Your task to perform on an android device: turn off improve location accuracy Image 0: 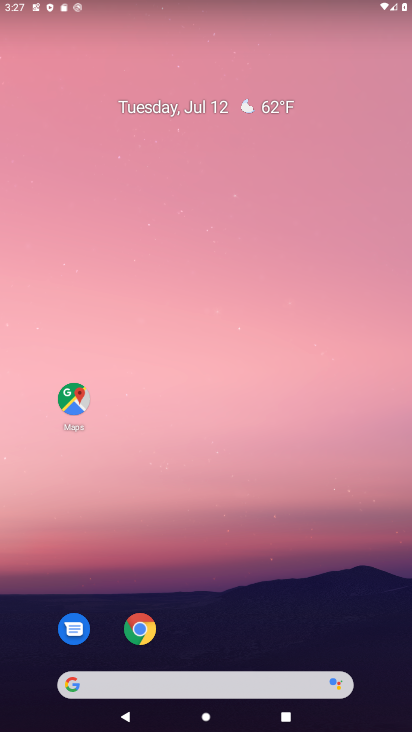
Step 0: drag from (223, 677) to (204, 101)
Your task to perform on an android device: turn off improve location accuracy Image 1: 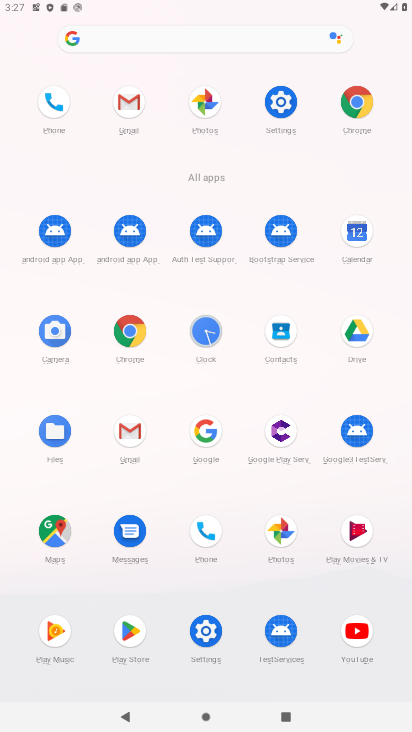
Step 1: click (261, 107)
Your task to perform on an android device: turn off improve location accuracy Image 2: 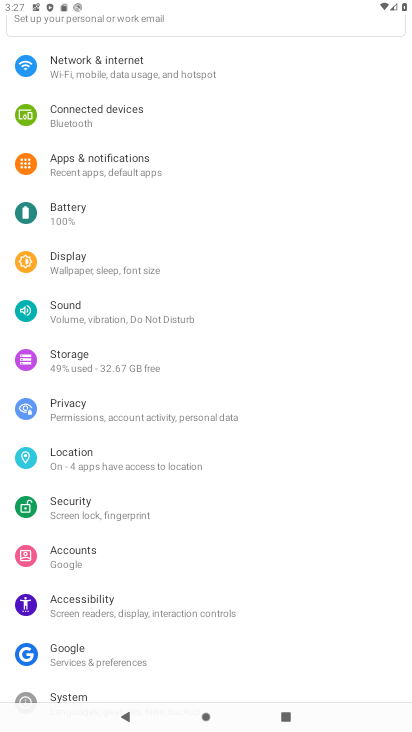
Step 2: click (86, 457)
Your task to perform on an android device: turn off improve location accuracy Image 3: 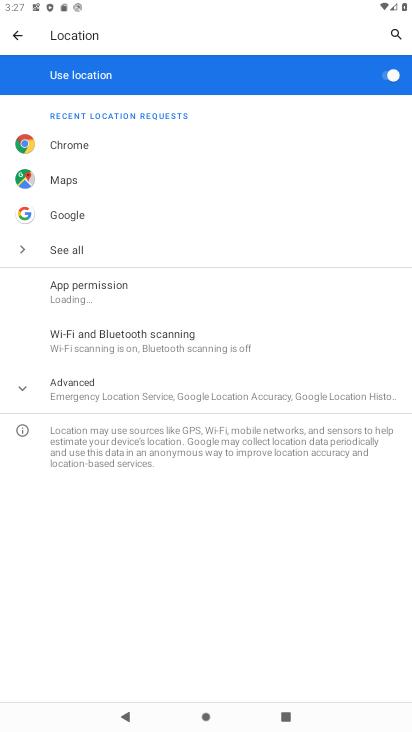
Step 3: click (80, 403)
Your task to perform on an android device: turn off improve location accuracy Image 4: 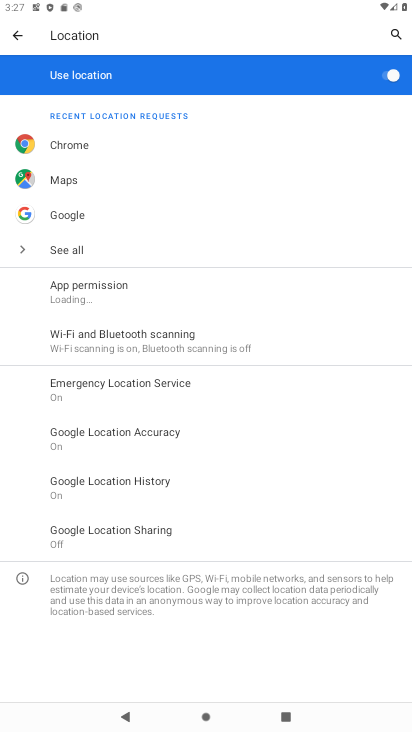
Step 4: click (131, 435)
Your task to perform on an android device: turn off improve location accuracy Image 5: 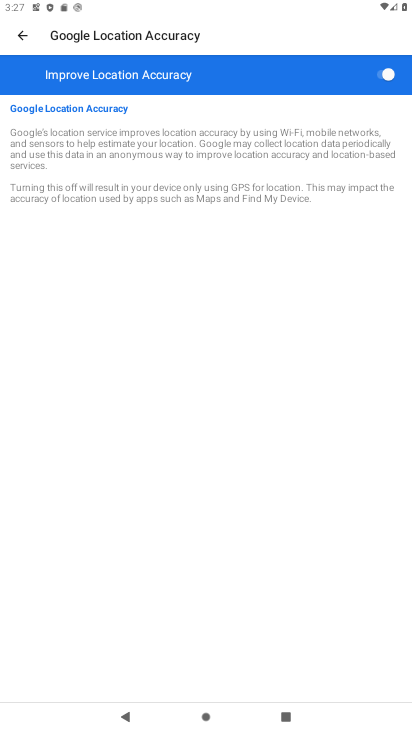
Step 5: click (372, 82)
Your task to perform on an android device: turn off improve location accuracy Image 6: 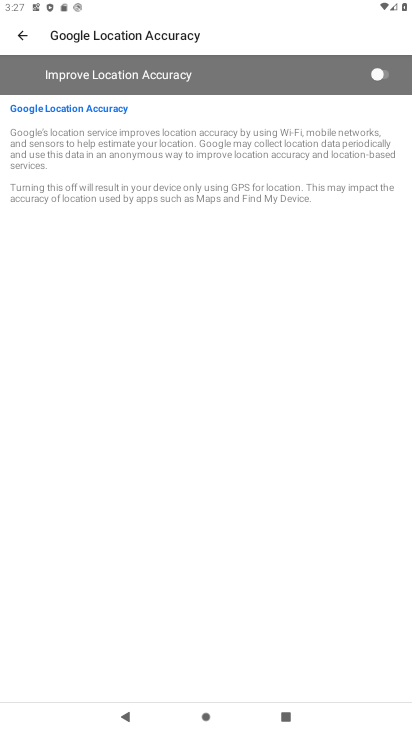
Step 6: task complete